Your task to perform on an android device: change the clock style Image 0: 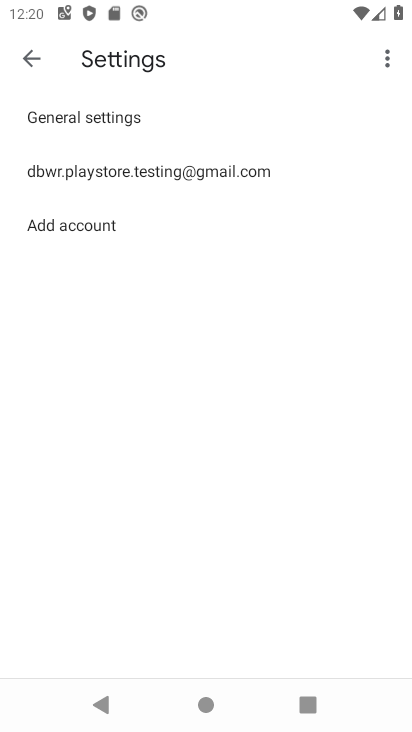
Step 0: press home button
Your task to perform on an android device: change the clock style Image 1: 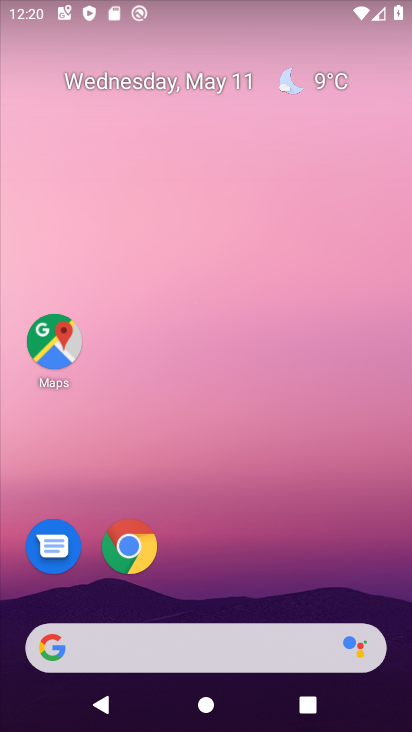
Step 1: drag from (352, 671) to (279, 2)
Your task to perform on an android device: change the clock style Image 2: 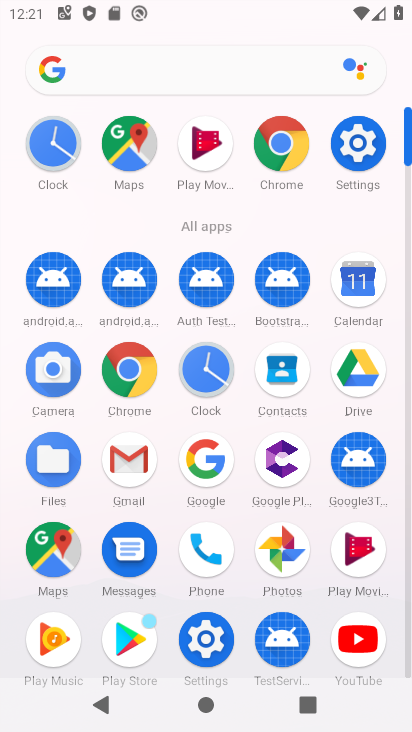
Step 2: click (207, 354)
Your task to perform on an android device: change the clock style Image 3: 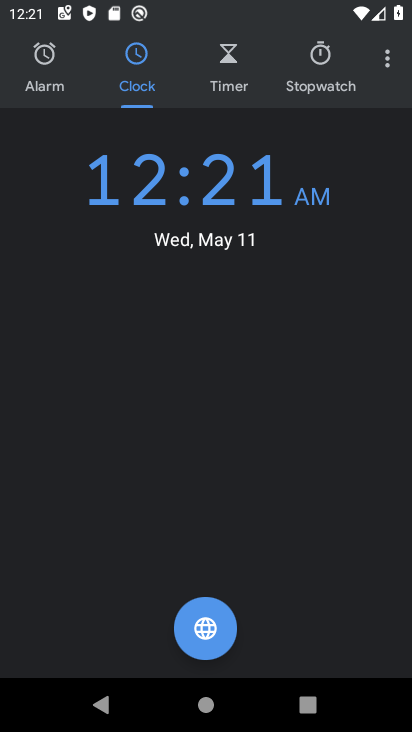
Step 3: click (387, 56)
Your task to perform on an android device: change the clock style Image 4: 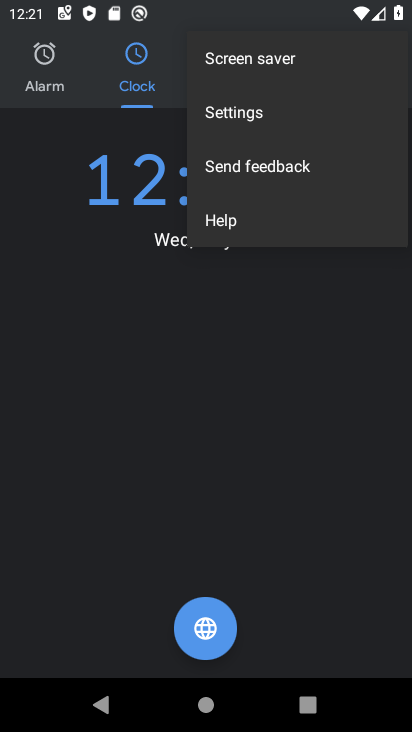
Step 4: click (269, 121)
Your task to perform on an android device: change the clock style Image 5: 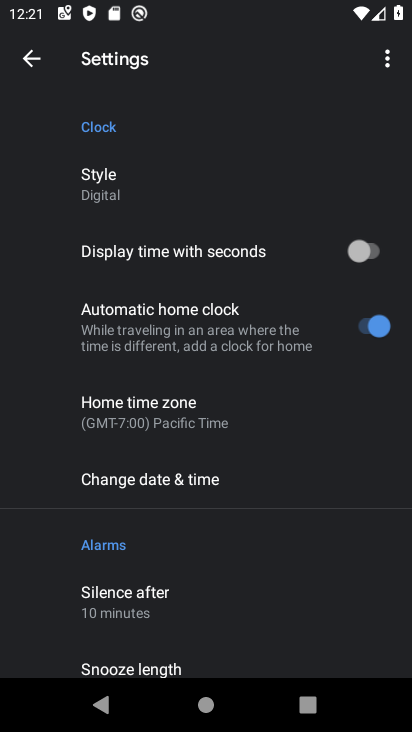
Step 5: drag from (327, 662) to (263, 48)
Your task to perform on an android device: change the clock style Image 6: 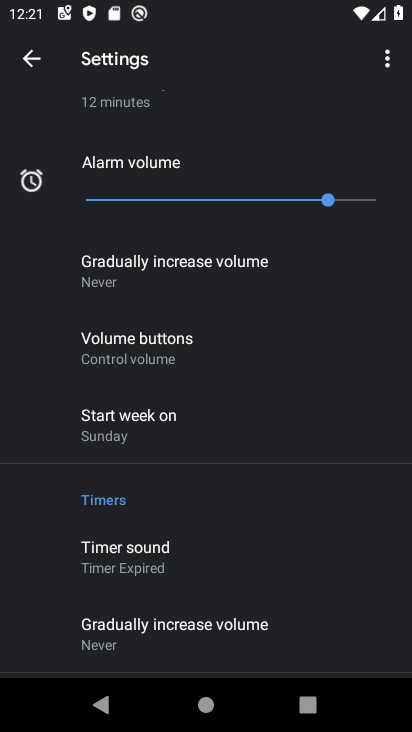
Step 6: drag from (278, 561) to (261, 58)
Your task to perform on an android device: change the clock style Image 7: 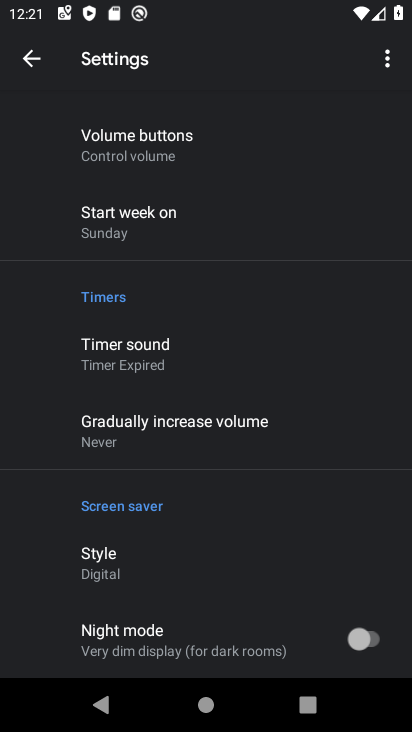
Step 7: click (178, 560)
Your task to perform on an android device: change the clock style Image 8: 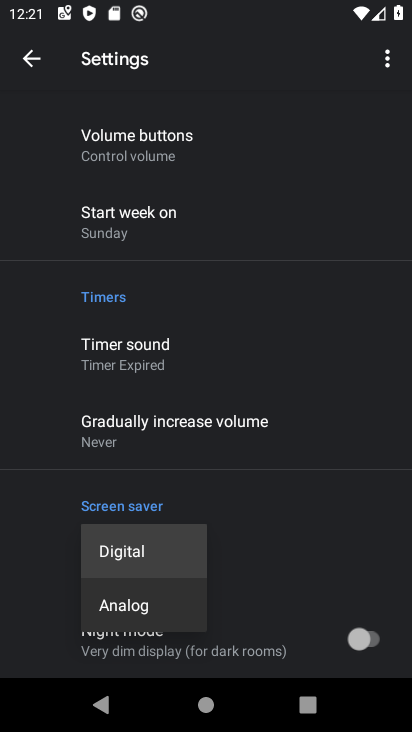
Step 8: click (136, 600)
Your task to perform on an android device: change the clock style Image 9: 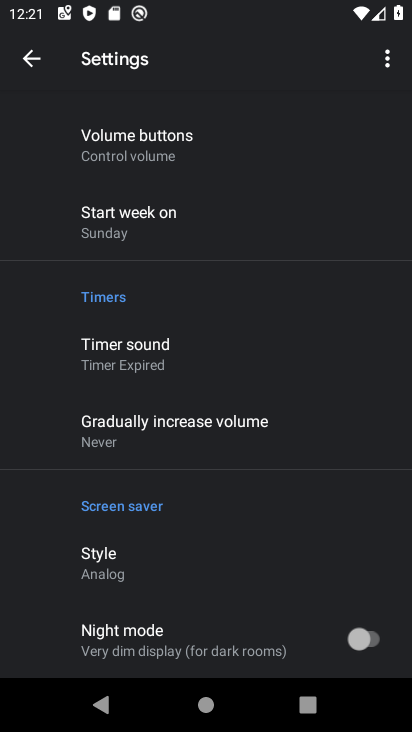
Step 9: task complete